Your task to perform on an android device: toggle data saver in the chrome app Image 0: 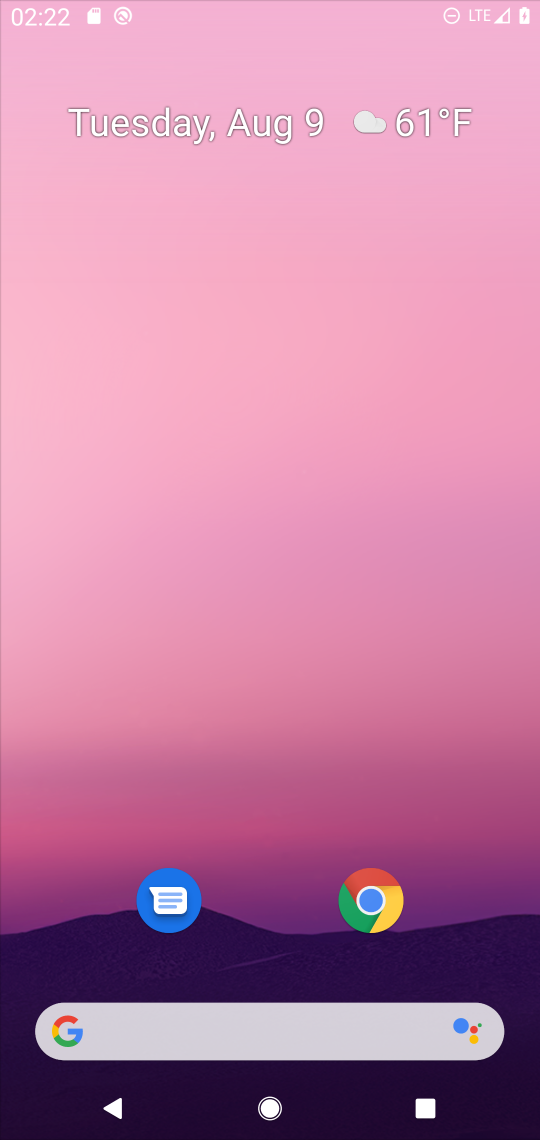
Step 0: press home button
Your task to perform on an android device: toggle data saver in the chrome app Image 1: 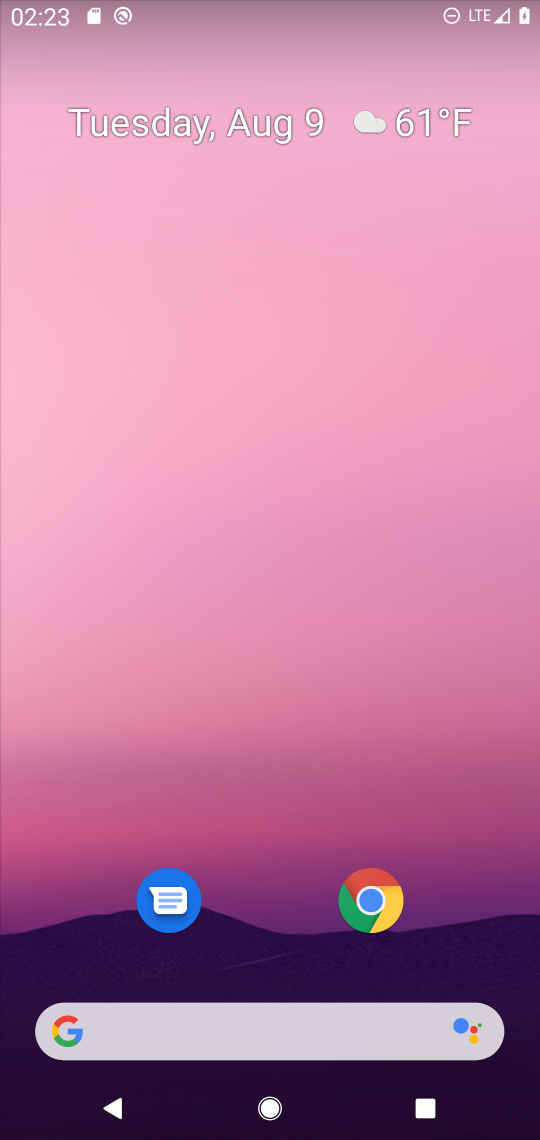
Step 1: drag from (255, 950) to (334, 375)
Your task to perform on an android device: toggle data saver in the chrome app Image 2: 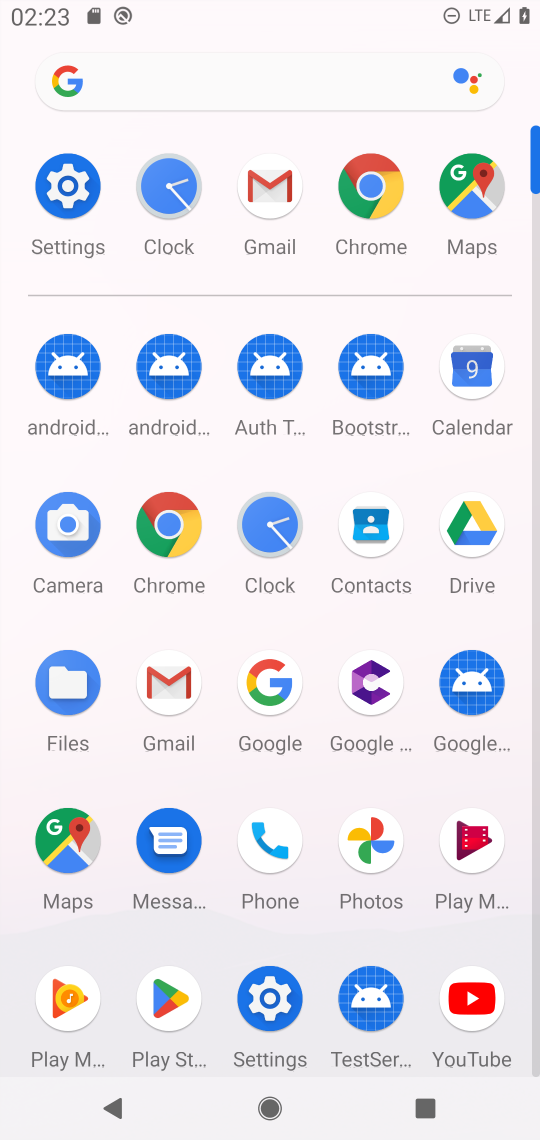
Step 2: click (163, 536)
Your task to perform on an android device: toggle data saver in the chrome app Image 3: 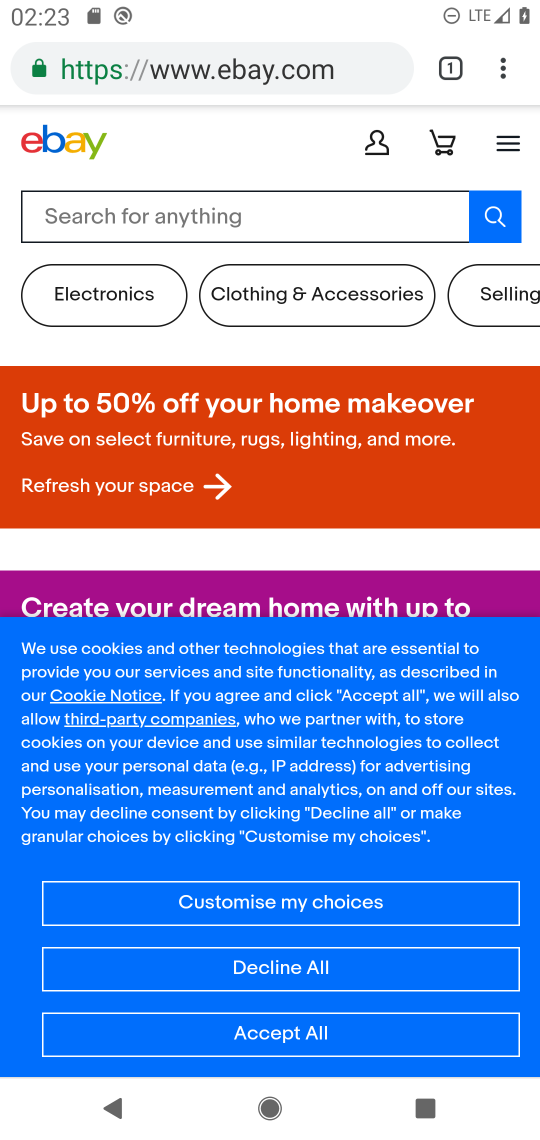
Step 3: click (505, 74)
Your task to perform on an android device: toggle data saver in the chrome app Image 4: 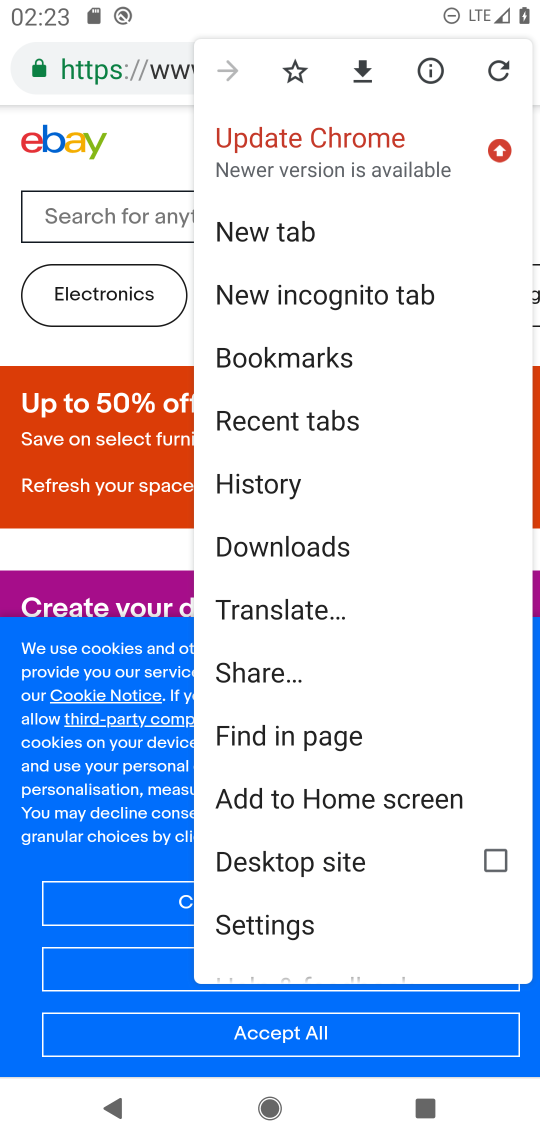
Step 4: click (315, 923)
Your task to perform on an android device: toggle data saver in the chrome app Image 5: 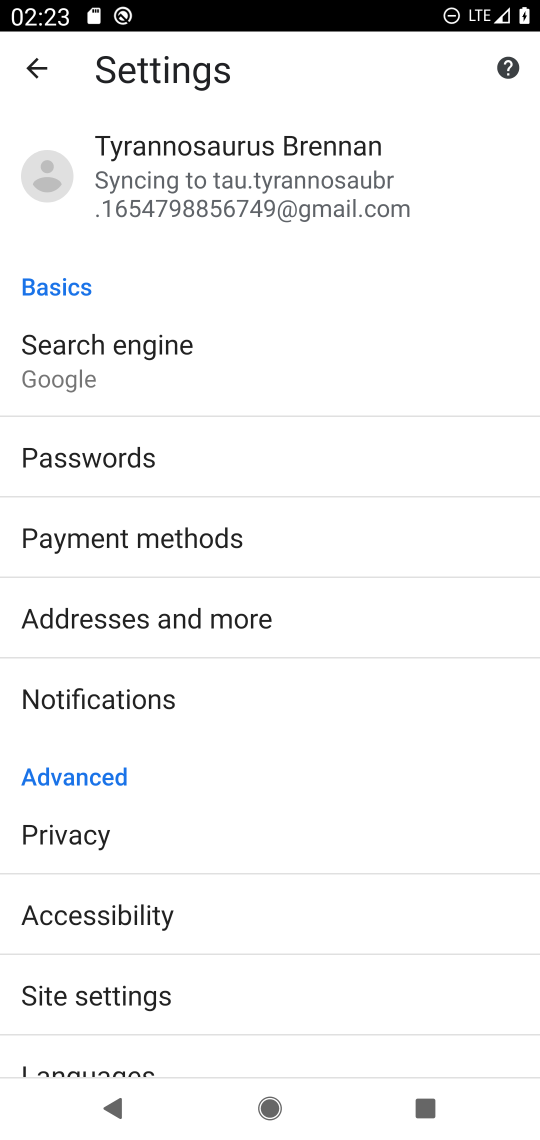
Step 5: drag from (350, 889) to (388, 573)
Your task to perform on an android device: toggle data saver in the chrome app Image 6: 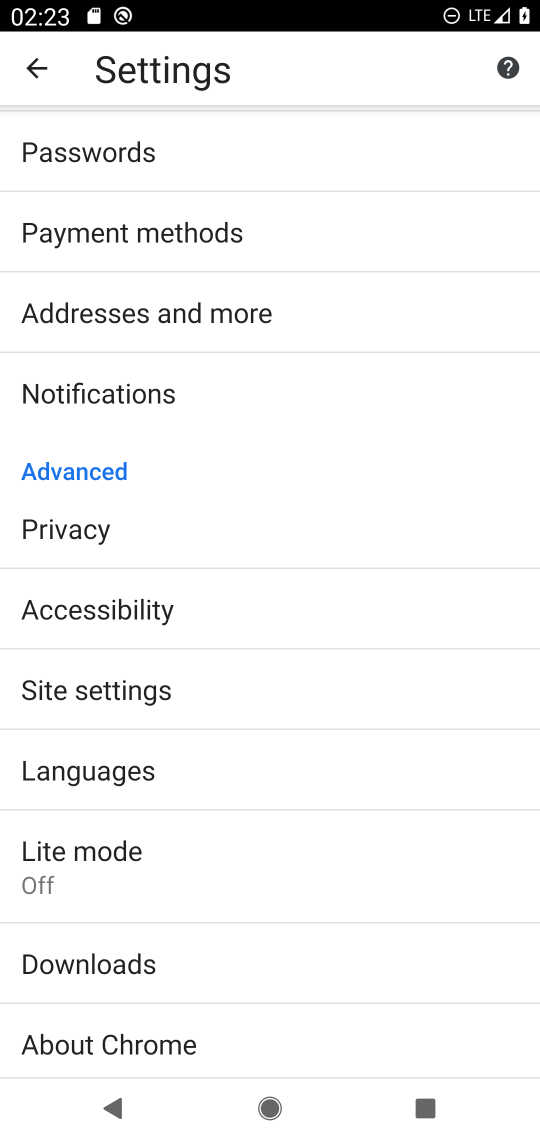
Step 6: drag from (404, 890) to (404, 538)
Your task to perform on an android device: toggle data saver in the chrome app Image 7: 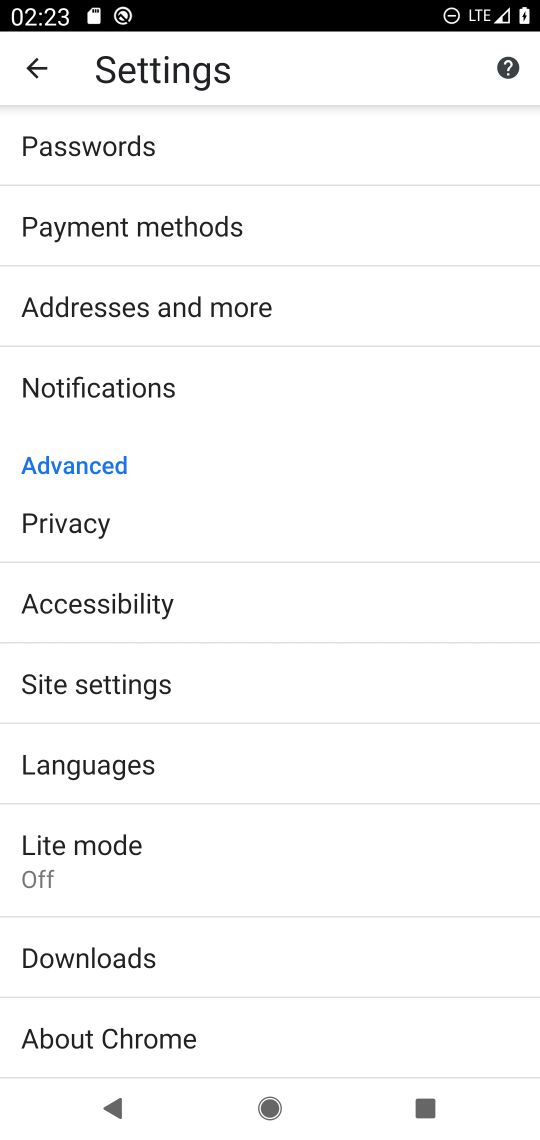
Step 7: drag from (428, 358) to (423, 516)
Your task to perform on an android device: toggle data saver in the chrome app Image 8: 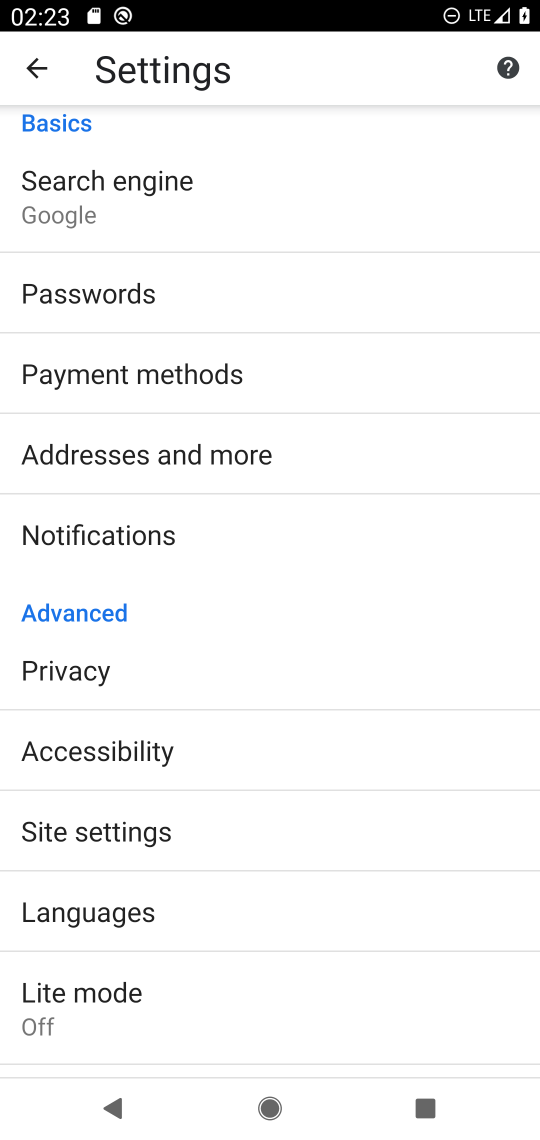
Step 8: drag from (441, 273) to (436, 572)
Your task to perform on an android device: toggle data saver in the chrome app Image 9: 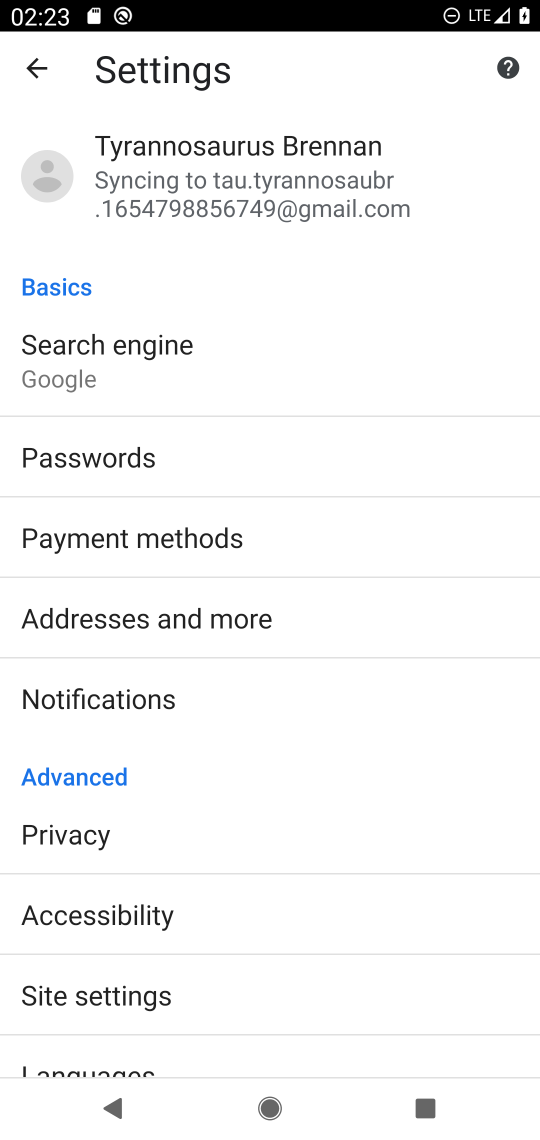
Step 9: drag from (453, 752) to (438, 406)
Your task to perform on an android device: toggle data saver in the chrome app Image 10: 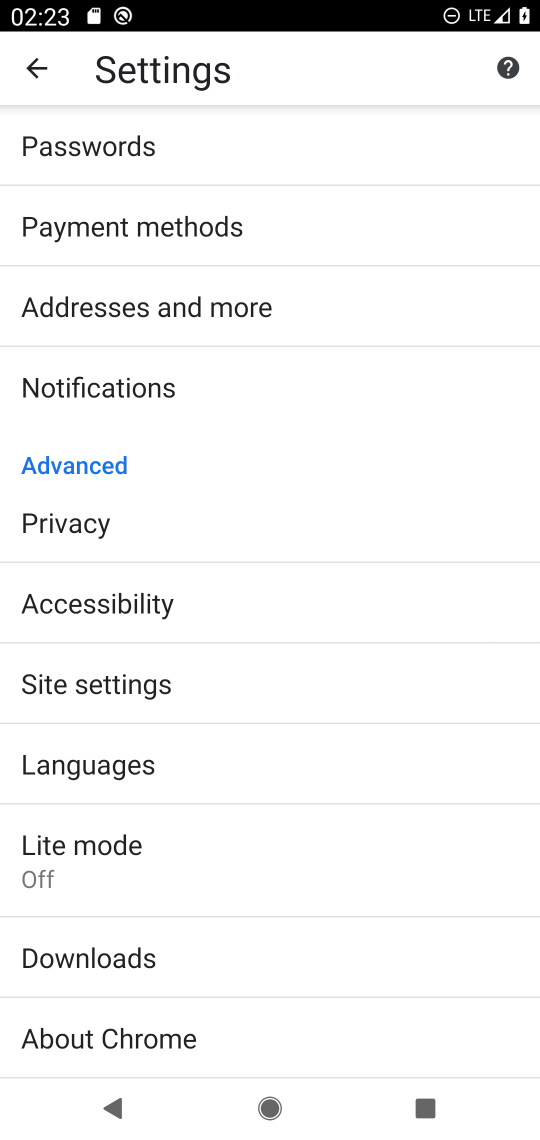
Step 10: drag from (408, 717) to (418, 468)
Your task to perform on an android device: toggle data saver in the chrome app Image 11: 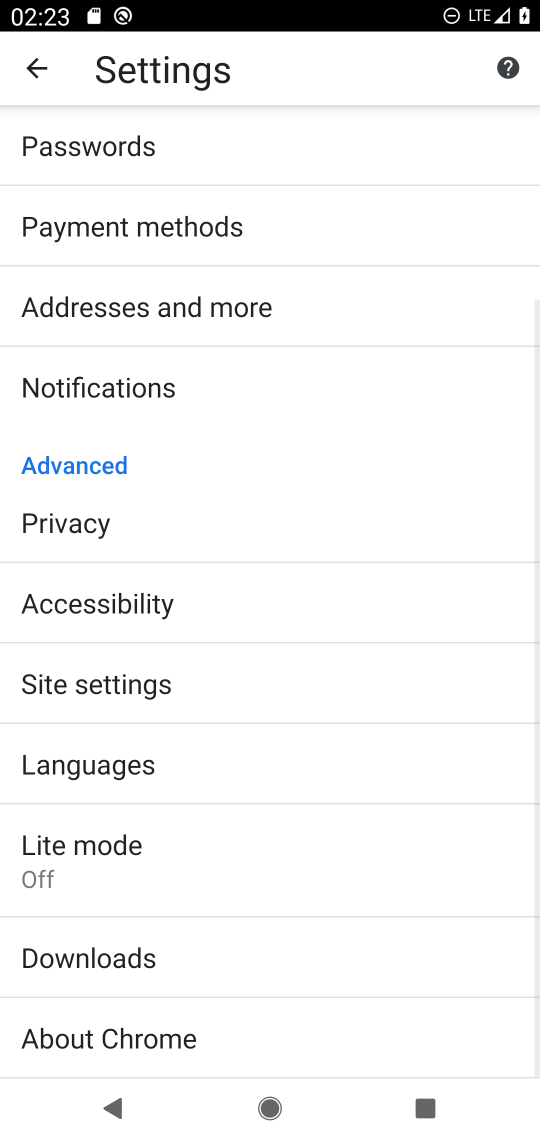
Step 11: click (425, 844)
Your task to perform on an android device: toggle data saver in the chrome app Image 12: 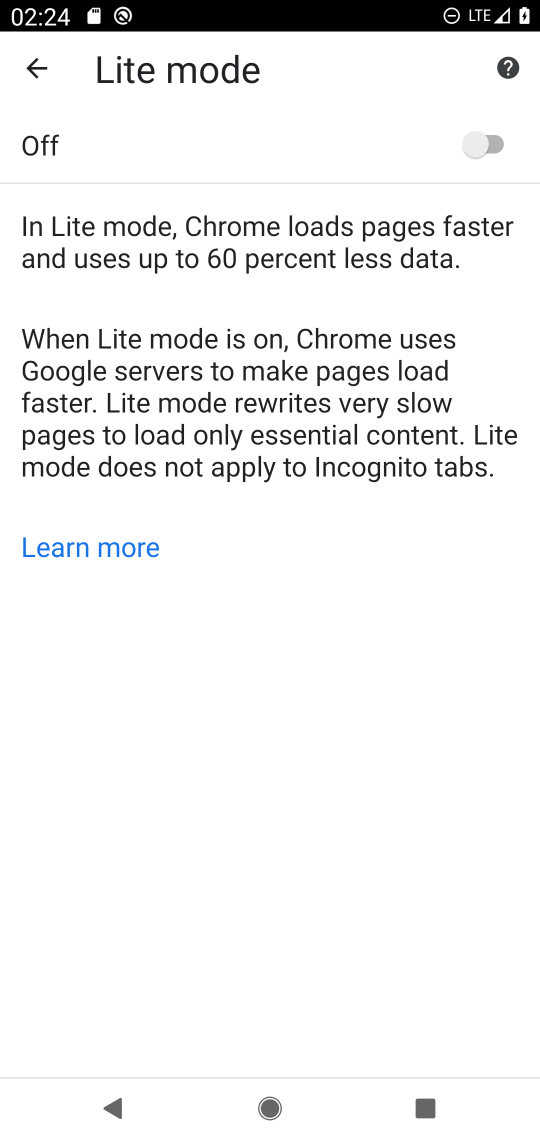
Step 12: click (485, 132)
Your task to perform on an android device: toggle data saver in the chrome app Image 13: 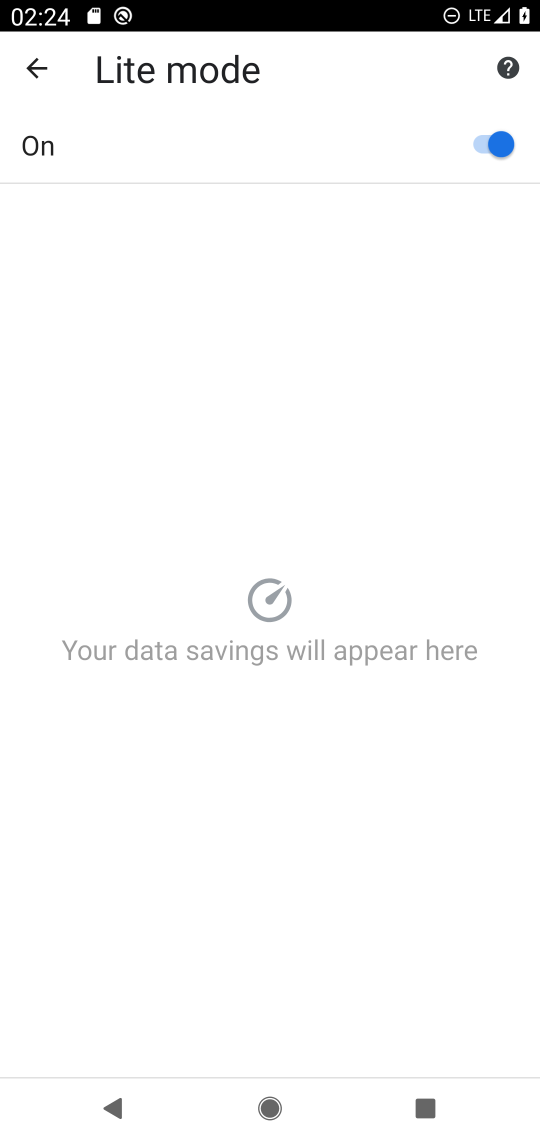
Step 13: task complete